Your task to perform on an android device: turn on bluetooth scan Image 0: 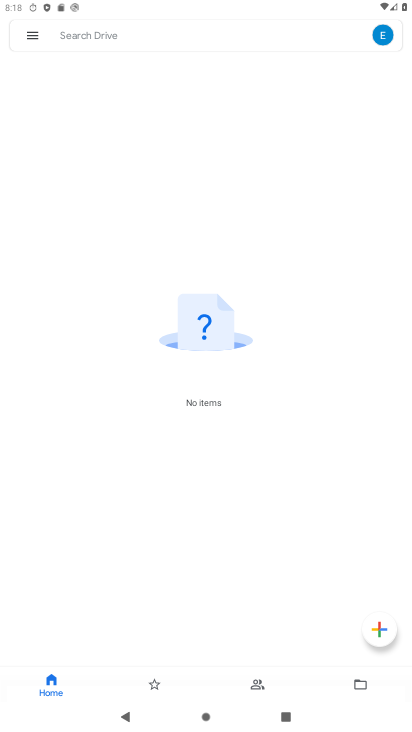
Step 0: press home button
Your task to perform on an android device: turn on bluetooth scan Image 1: 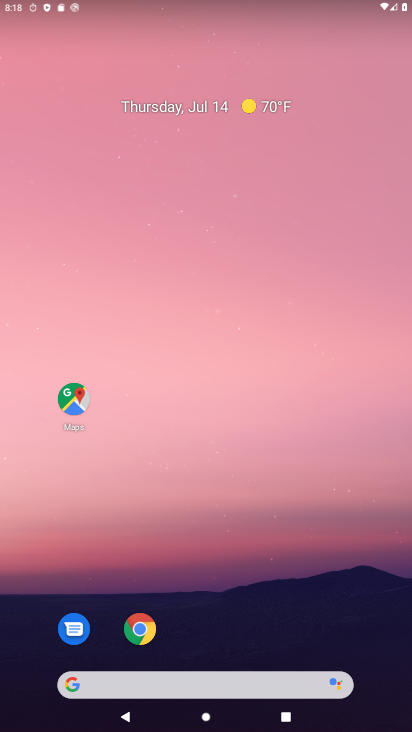
Step 1: drag from (344, 560) to (260, 0)
Your task to perform on an android device: turn on bluetooth scan Image 2: 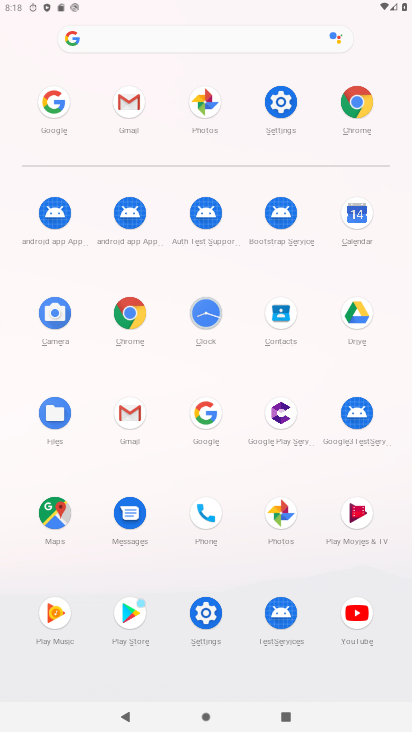
Step 2: click (274, 110)
Your task to perform on an android device: turn on bluetooth scan Image 3: 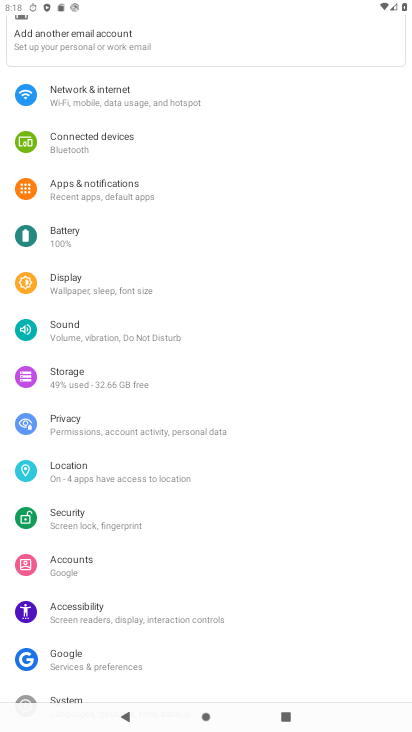
Step 3: click (102, 479)
Your task to perform on an android device: turn on bluetooth scan Image 4: 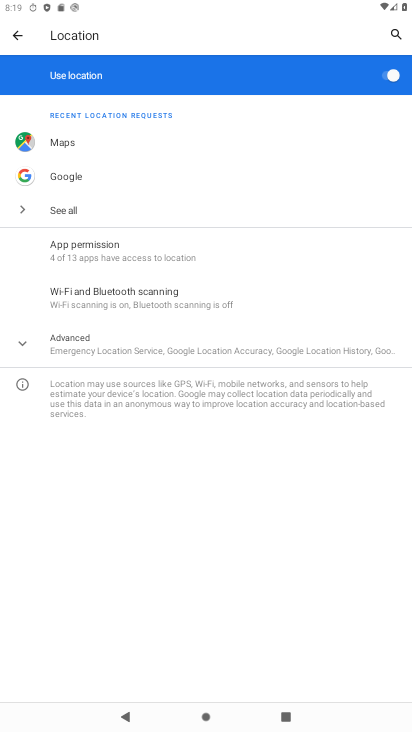
Step 4: click (119, 348)
Your task to perform on an android device: turn on bluetooth scan Image 5: 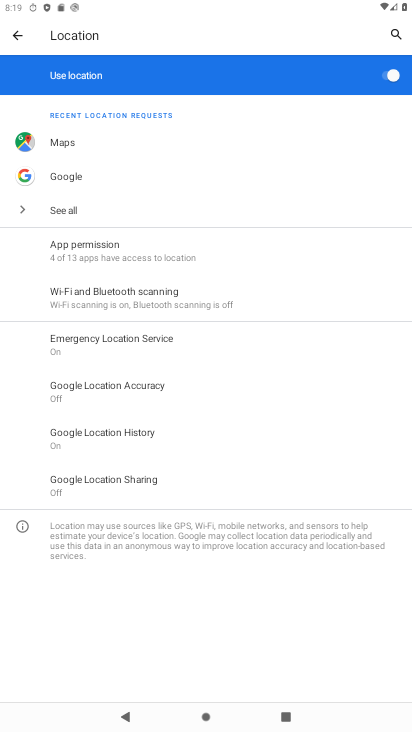
Step 5: click (88, 300)
Your task to perform on an android device: turn on bluetooth scan Image 6: 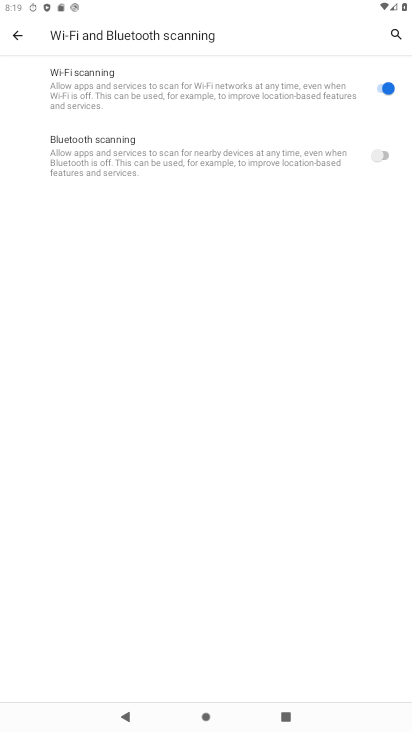
Step 6: click (384, 156)
Your task to perform on an android device: turn on bluetooth scan Image 7: 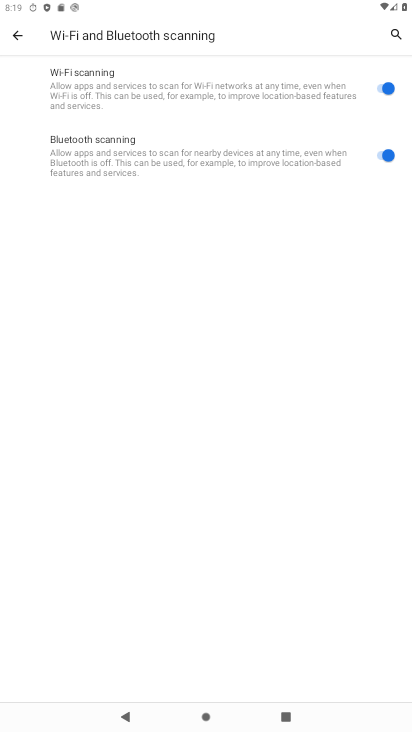
Step 7: task complete